Your task to perform on an android device: Look up the best rated video games on bestbuy.com Image 0: 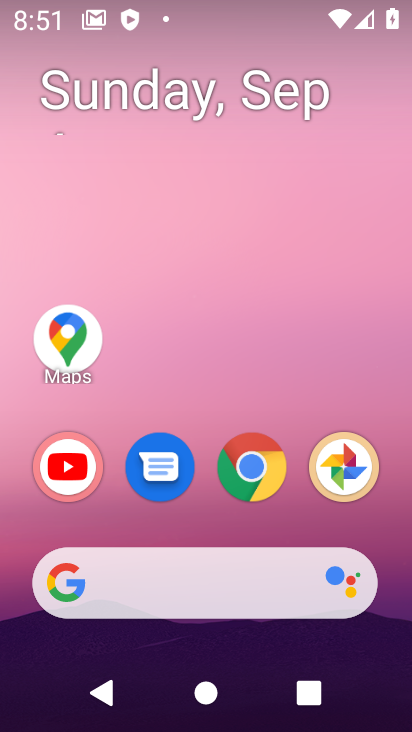
Step 0: click (244, 468)
Your task to perform on an android device: Look up the best rated video games on bestbuy.com Image 1: 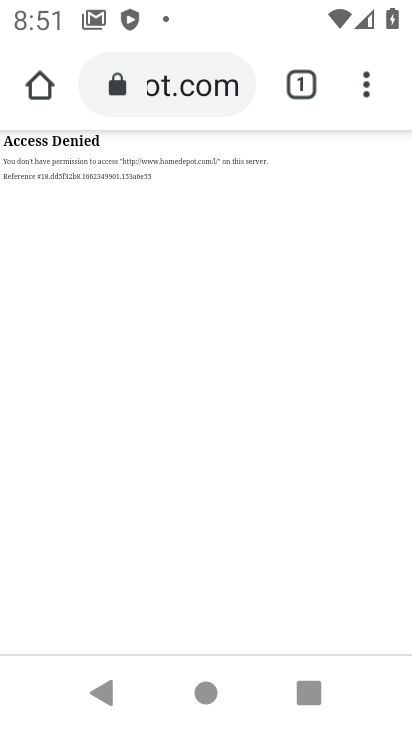
Step 1: click (198, 84)
Your task to perform on an android device: Look up the best rated video games on bestbuy.com Image 2: 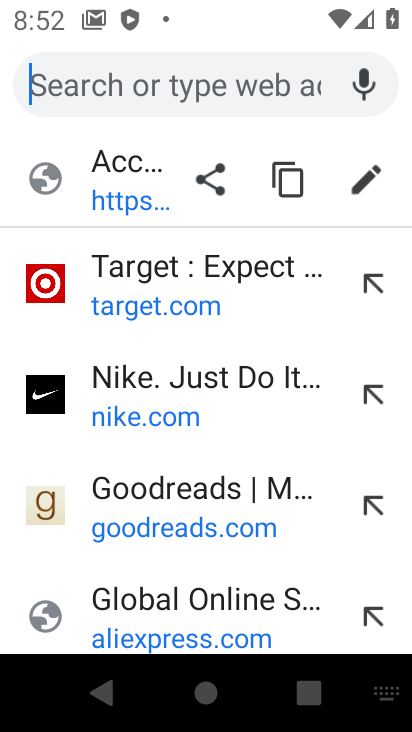
Step 2: type "bestbuy.com"
Your task to perform on an android device: Look up the best rated video games on bestbuy.com Image 3: 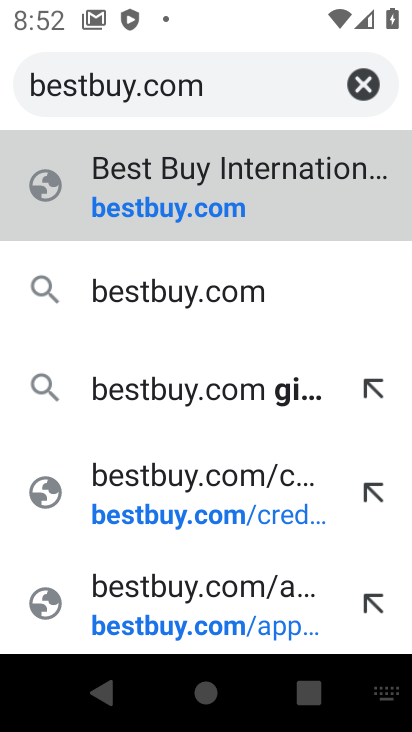
Step 3: click (170, 208)
Your task to perform on an android device: Look up the best rated video games on bestbuy.com Image 4: 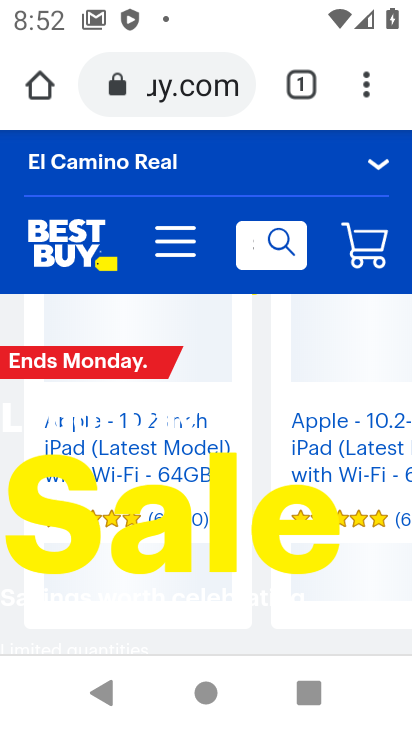
Step 4: click (288, 245)
Your task to perform on an android device: Look up the best rated video games on bestbuy.com Image 5: 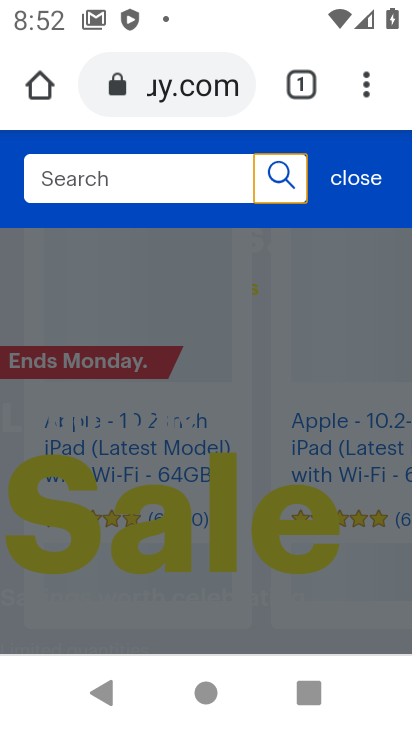
Step 5: click (133, 187)
Your task to perform on an android device: Look up the best rated video games on bestbuy.com Image 6: 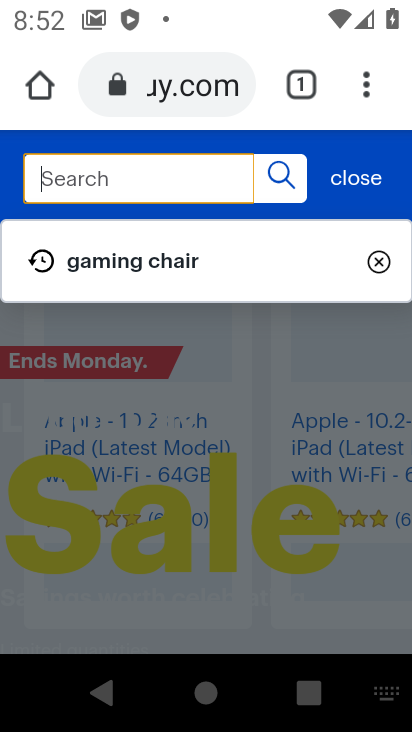
Step 6: type "video games"
Your task to perform on an android device: Look up the best rated video games on bestbuy.com Image 7: 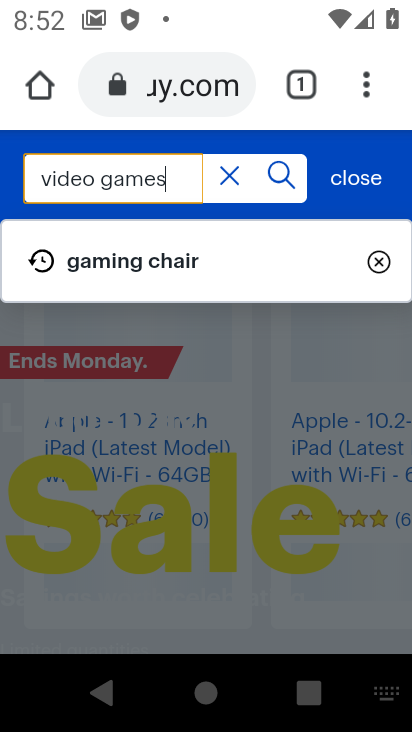
Step 7: type ""
Your task to perform on an android device: Look up the best rated video games on bestbuy.com Image 8: 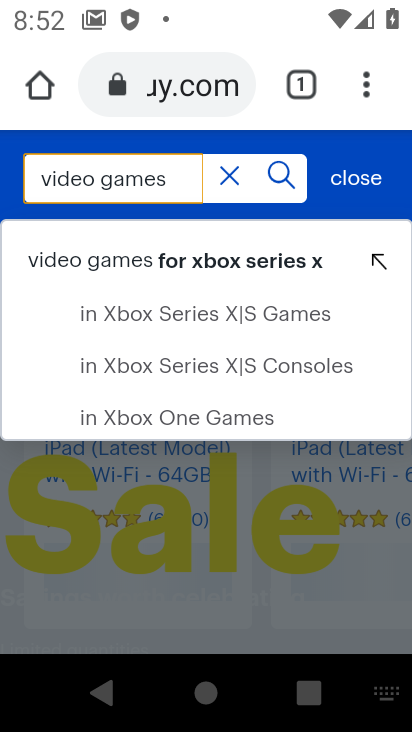
Step 8: click (102, 261)
Your task to perform on an android device: Look up the best rated video games on bestbuy.com Image 9: 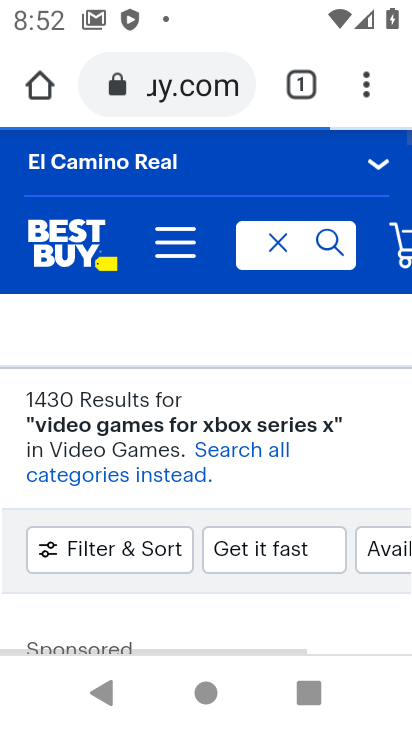
Step 9: drag from (368, 440) to (350, 200)
Your task to perform on an android device: Look up the best rated video games on bestbuy.com Image 10: 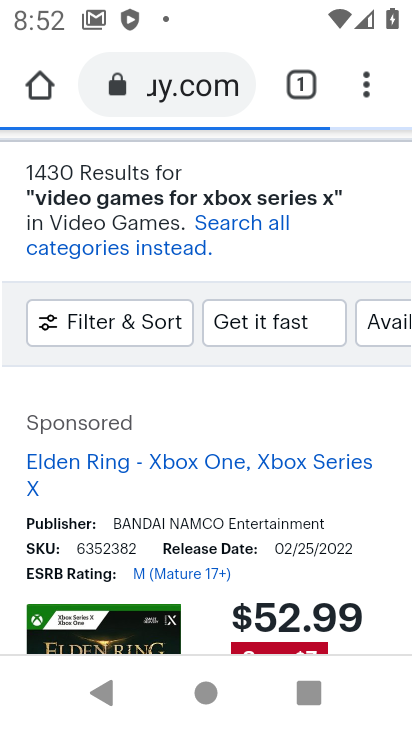
Step 10: drag from (360, 503) to (342, 278)
Your task to perform on an android device: Look up the best rated video games on bestbuy.com Image 11: 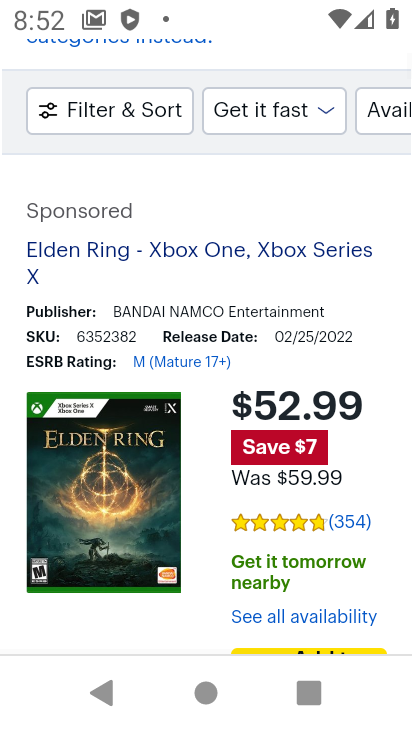
Step 11: drag from (338, 360) to (327, 300)
Your task to perform on an android device: Look up the best rated video games on bestbuy.com Image 12: 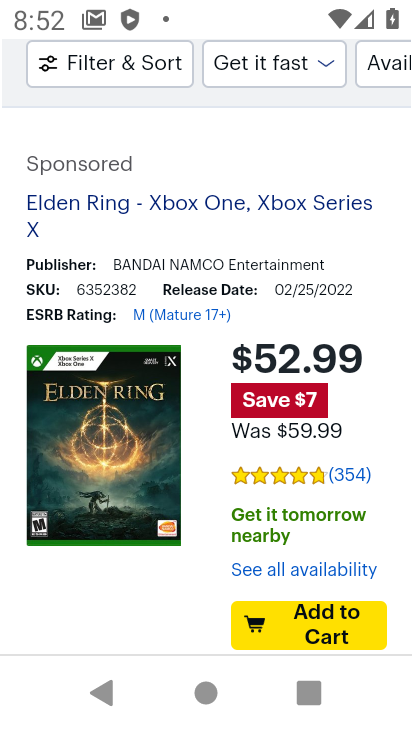
Step 12: drag from (357, 519) to (371, 250)
Your task to perform on an android device: Look up the best rated video games on bestbuy.com Image 13: 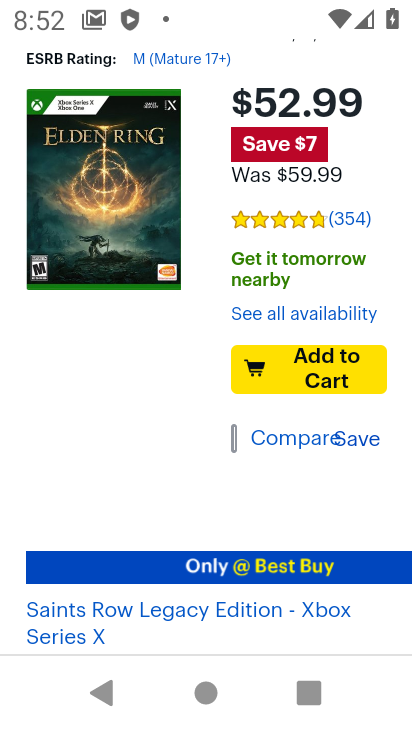
Step 13: drag from (325, 399) to (390, 188)
Your task to perform on an android device: Look up the best rated video games on bestbuy.com Image 14: 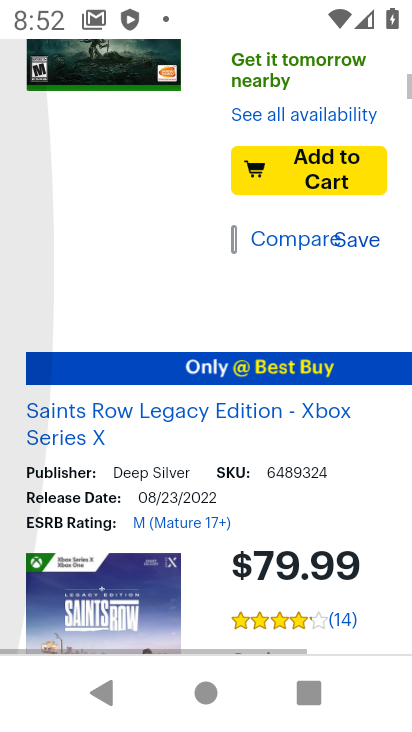
Step 14: drag from (304, 551) to (304, 238)
Your task to perform on an android device: Look up the best rated video games on bestbuy.com Image 15: 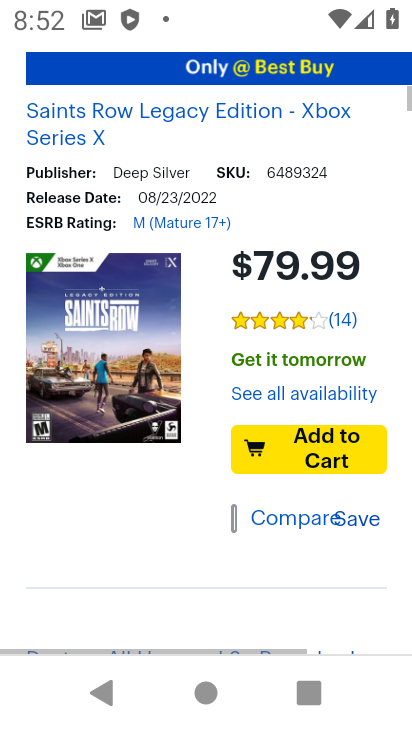
Step 15: drag from (346, 471) to (335, 202)
Your task to perform on an android device: Look up the best rated video games on bestbuy.com Image 16: 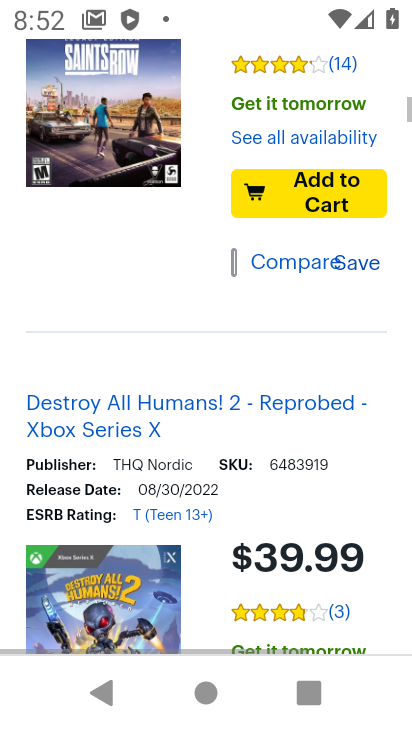
Step 16: drag from (334, 321) to (354, 159)
Your task to perform on an android device: Look up the best rated video games on bestbuy.com Image 17: 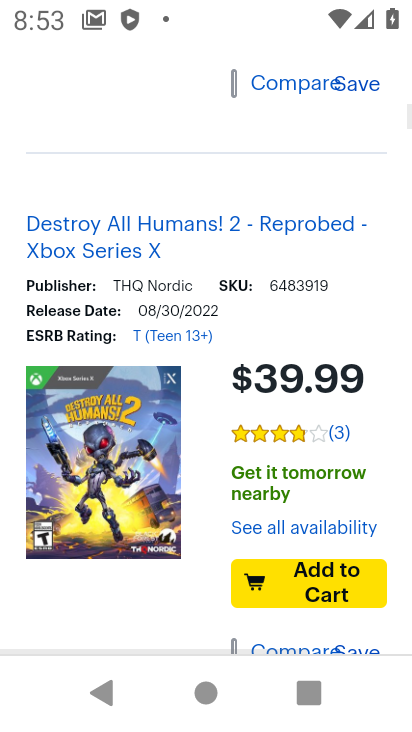
Step 17: drag from (352, 407) to (341, 195)
Your task to perform on an android device: Look up the best rated video games on bestbuy.com Image 18: 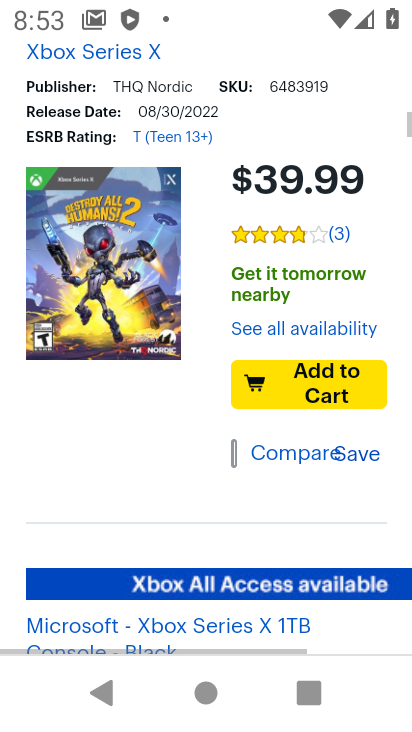
Step 18: drag from (307, 448) to (310, 331)
Your task to perform on an android device: Look up the best rated video games on bestbuy.com Image 19: 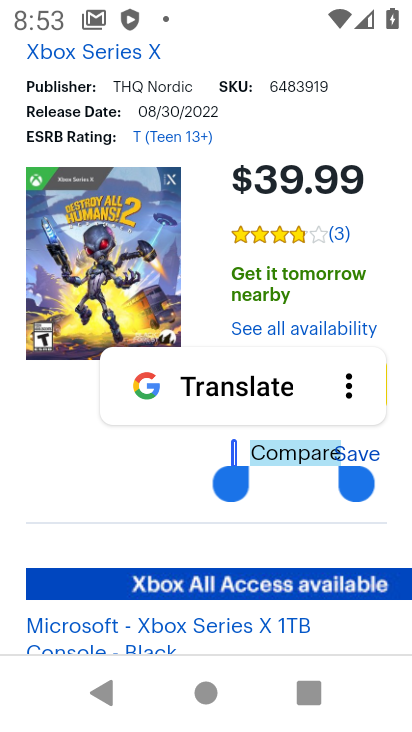
Step 19: drag from (411, 500) to (402, 263)
Your task to perform on an android device: Look up the best rated video games on bestbuy.com Image 20: 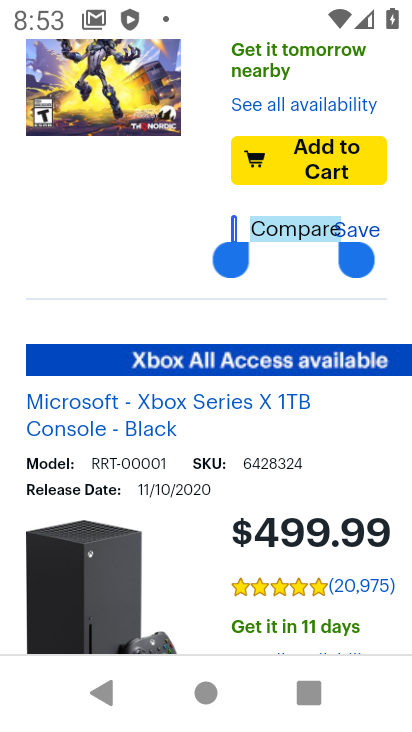
Step 20: drag from (393, 534) to (394, 487)
Your task to perform on an android device: Look up the best rated video games on bestbuy.com Image 21: 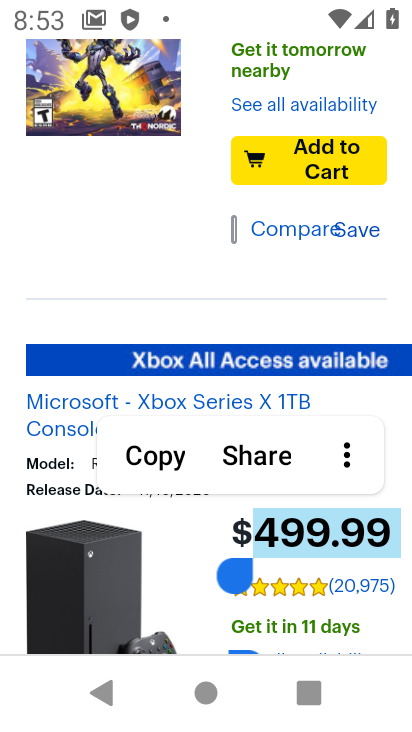
Step 21: drag from (365, 583) to (390, 397)
Your task to perform on an android device: Look up the best rated video games on bestbuy.com Image 22: 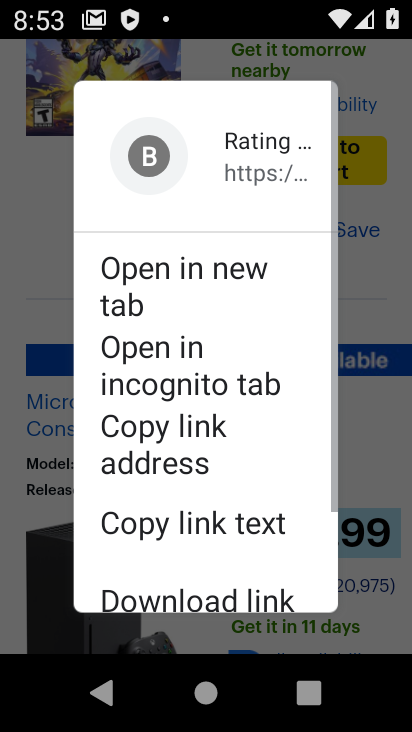
Step 22: click (404, 400)
Your task to perform on an android device: Look up the best rated video games on bestbuy.com Image 23: 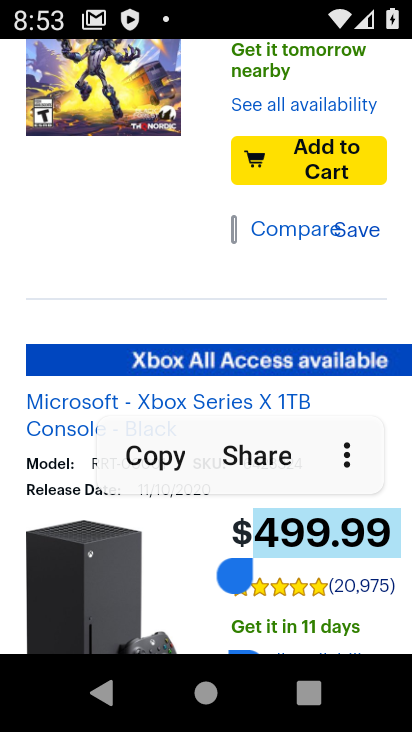
Step 23: click (401, 400)
Your task to perform on an android device: Look up the best rated video games on bestbuy.com Image 24: 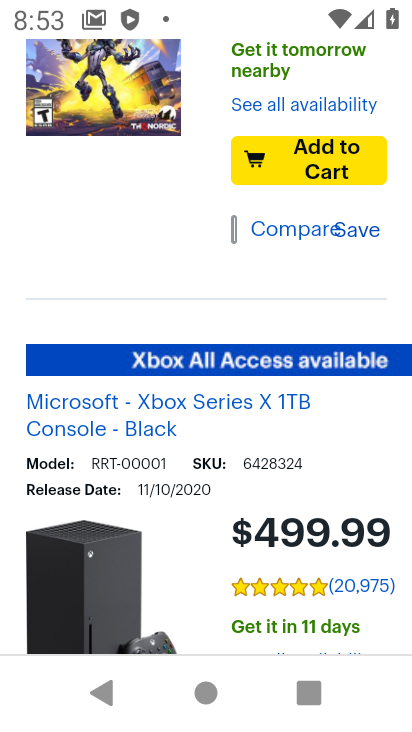
Step 24: drag from (148, 575) to (149, 282)
Your task to perform on an android device: Look up the best rated video games on bestbuy.com Image 25: 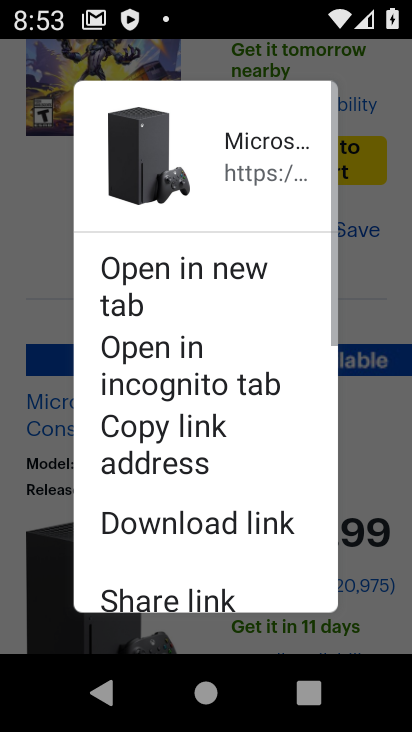
Step 25: click (360, 427)
Your task to perform on an android device: Look up the best rated video games on bestbuy.com Image 26: 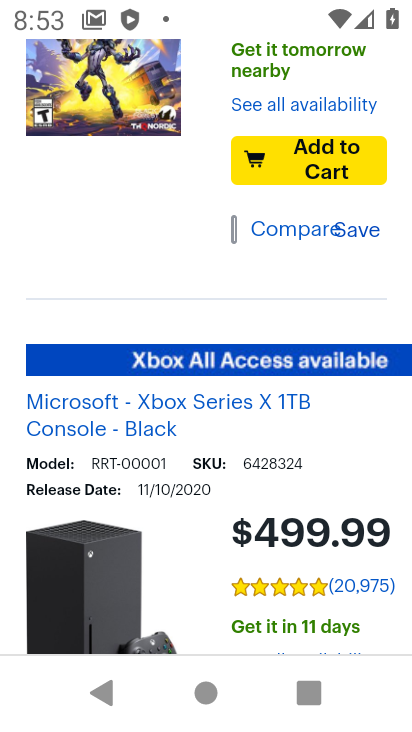
Step 26: drag from (293, 457) to (353, 131)
Your task to perform on an android device: Look up the best rated video games on bestbuy.com Image 27: 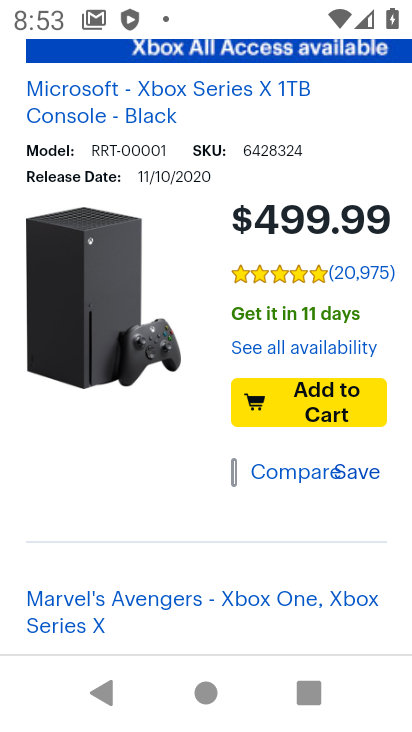
Step 27: drag from (343, 553) to (344, 236)
Your task to perform on an android device: Look up the best rated video games on bestbuy.com Image 28: 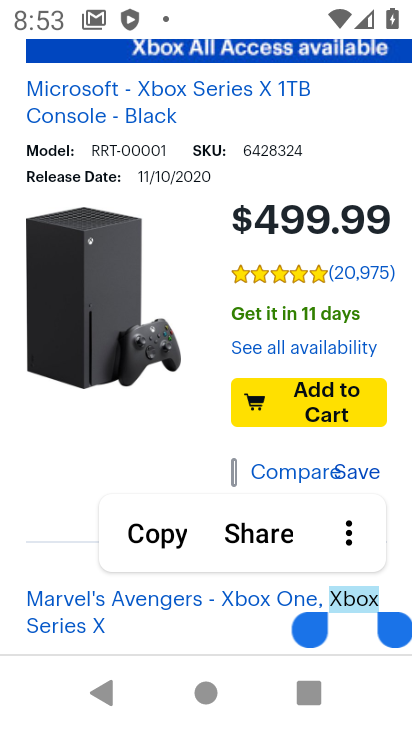
Step 28: click (20, 439)
Your task to perform on an android device: Look up the best rated video games on bestbuy.com Image 29: 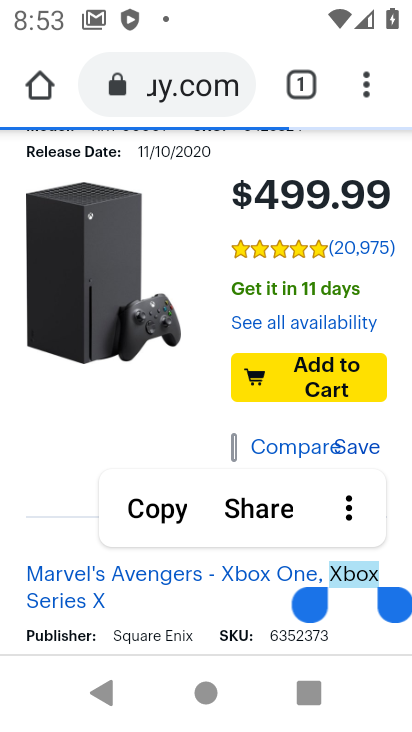
Step 29: click (406, 450)
Your task to perform on an android device: Look up the best rated video games on bestbuy.com Image 30: 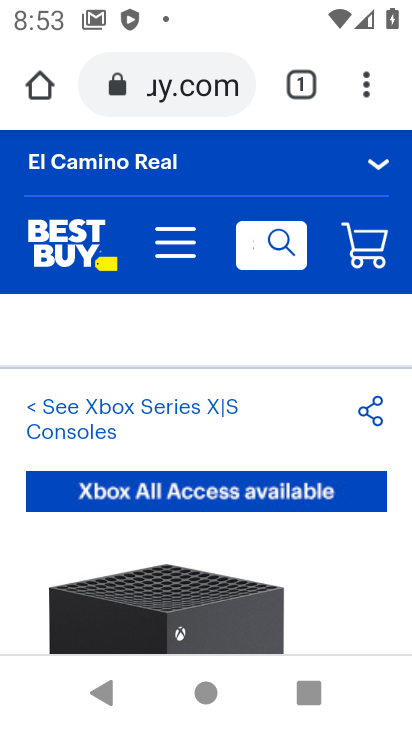
Step 30: click (365, 588)
Your task to perform on an android device: Look up the best rated video games on bestbuy.com Image 31: 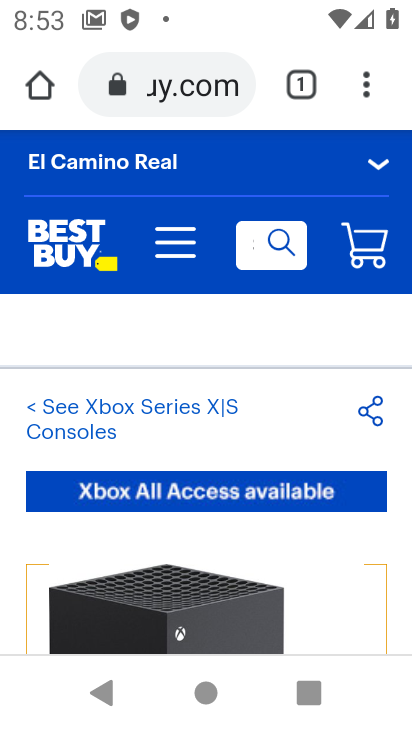
Step 31: task complete